Your task to perform on an android device: Add "usb-a to usb-b" to the cart on bestbuy Image 0: 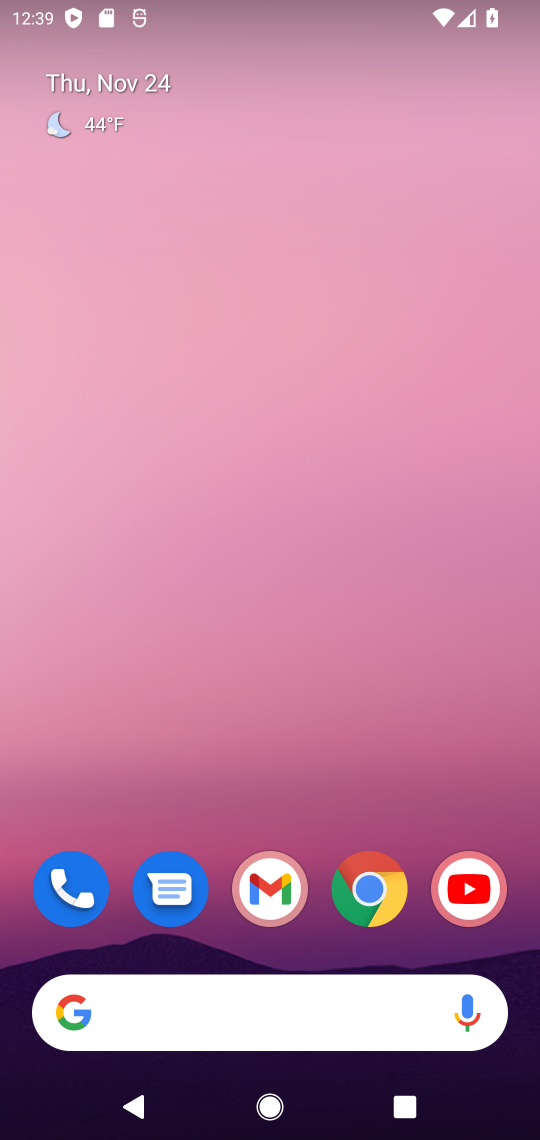
Step 0: click (370, 896)
Your task to perform on an android device: Add "usb-a to usb-b" to the cart on bestbuy Image 1: 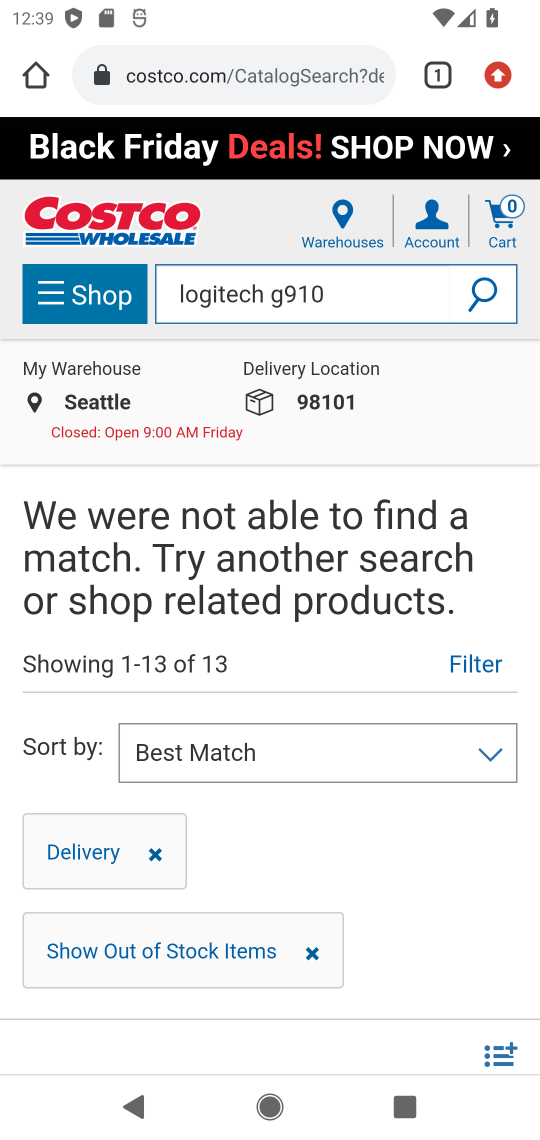
Step 1: click (252, 80)
Your task to perform on an android device: Add "usb-a to usb-b" to the cart on bestbuy Image 2: 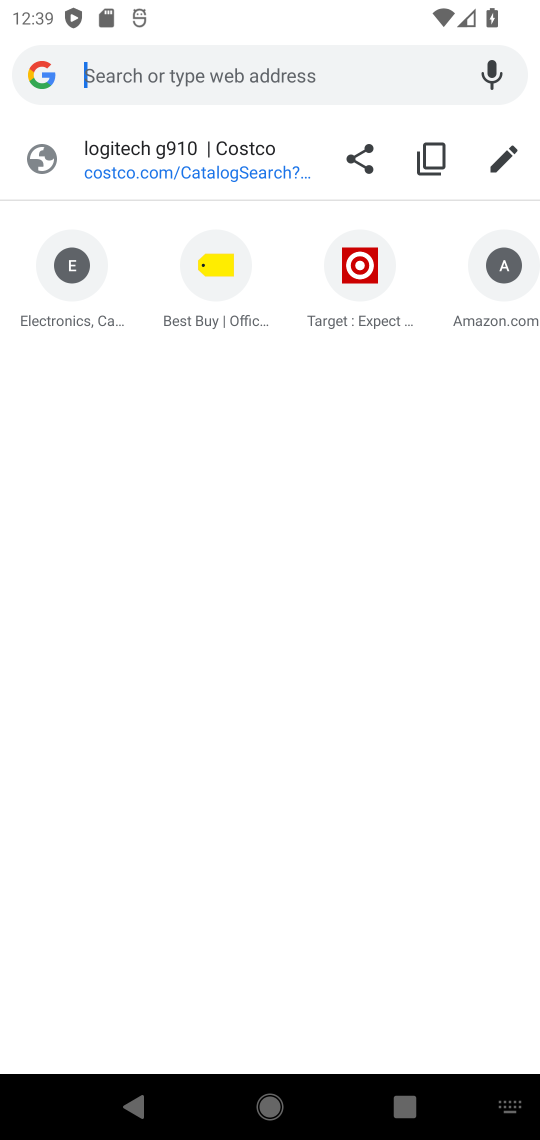
Step 2: click (229, 259)
Your task to perform on an android device: Add "usb-a to usb-b" to the cart on bestbuy Image 3: 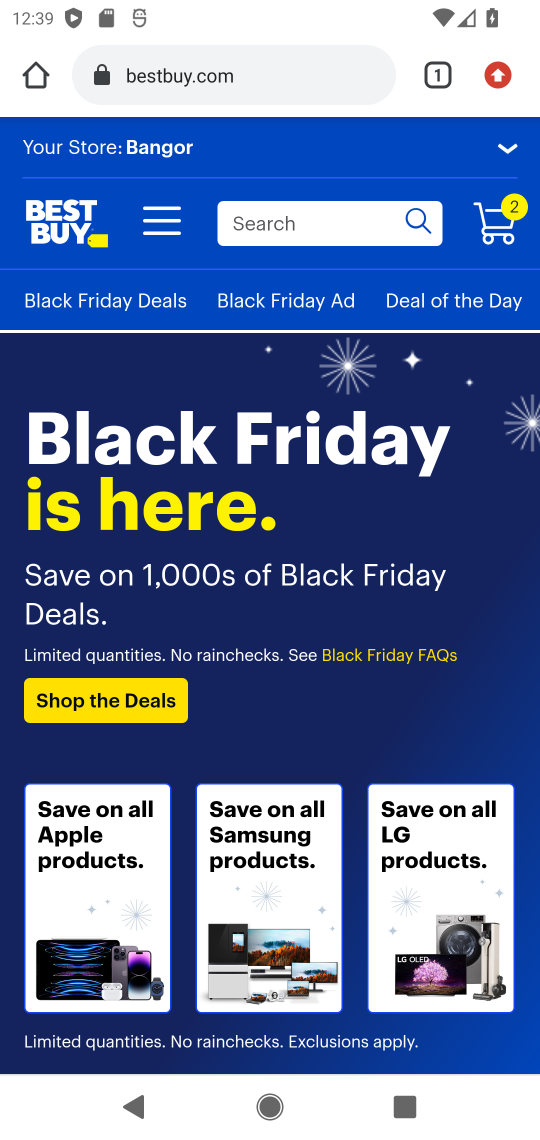
Step 3: click (258, 227)
Your task to perform on an android device: Add "usb-a to usb-b" to the cart on bestbuy Image 4: 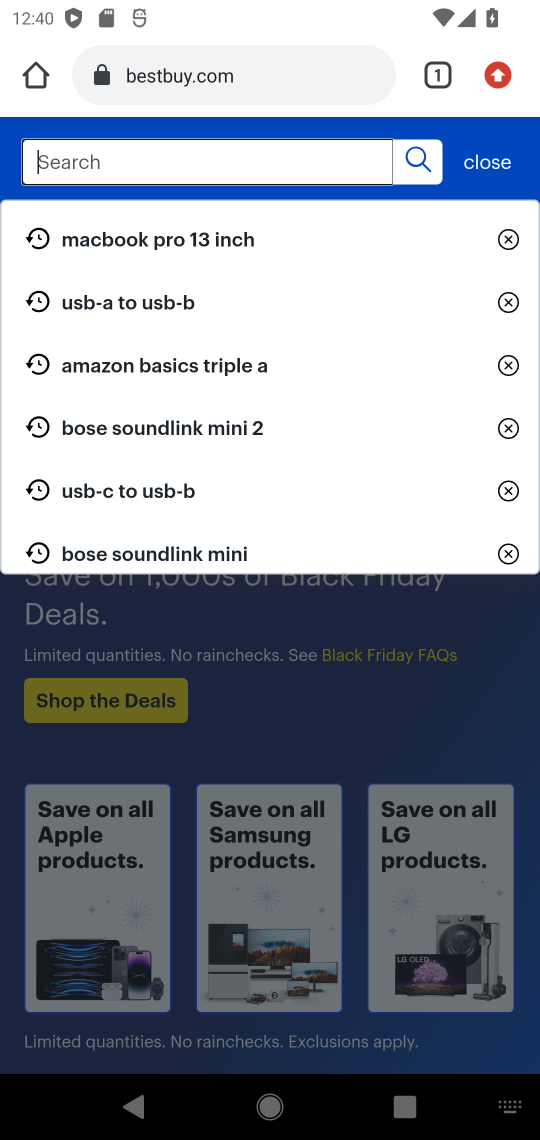
Step 4: click (91, 169)
Your task to perform on an android device: Add "usb-a to usb-b" to the cart on bestbuy Image 5: 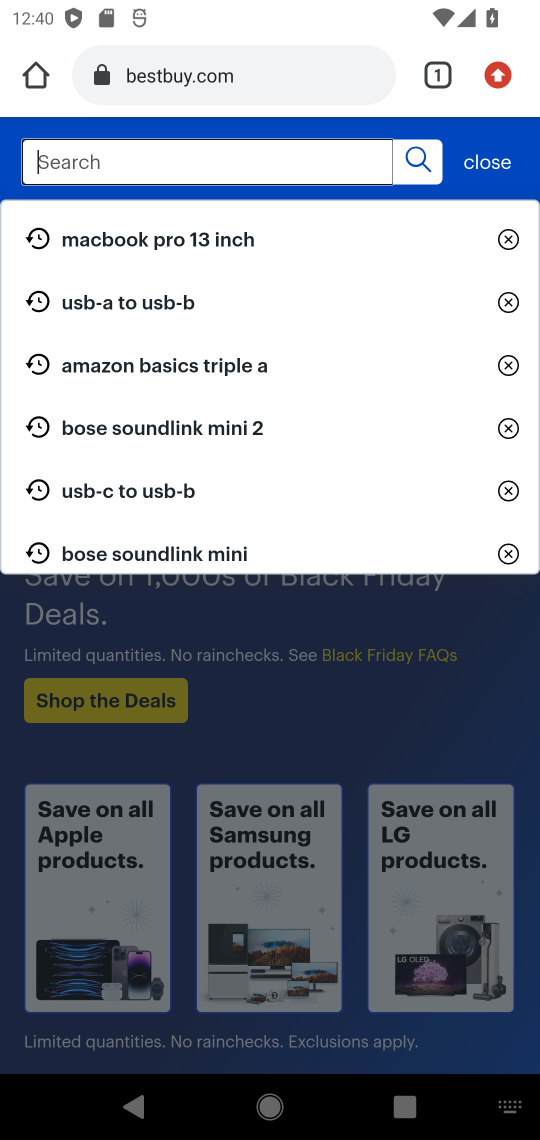
Step 5: type "usb-a to usb-b"
Your task to perform on an android device: Add "usb-a to usb-b" to the cart on bestbuy Image 6: 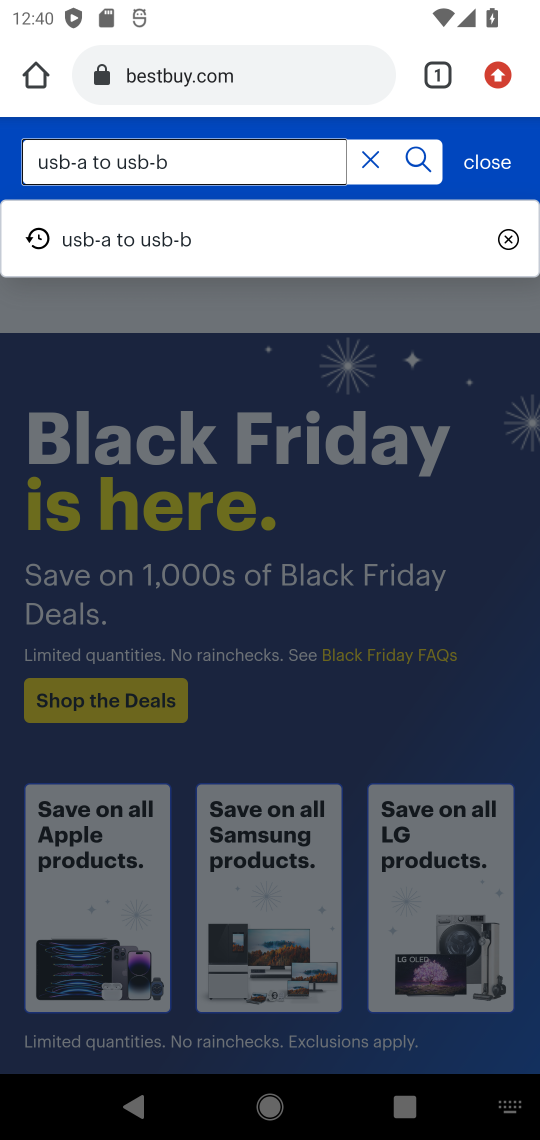
Step 6: click (122, 243)
Your task to perform on an android device: Add "usb-a to usb-b" to the cart on bestbuy Image 7: 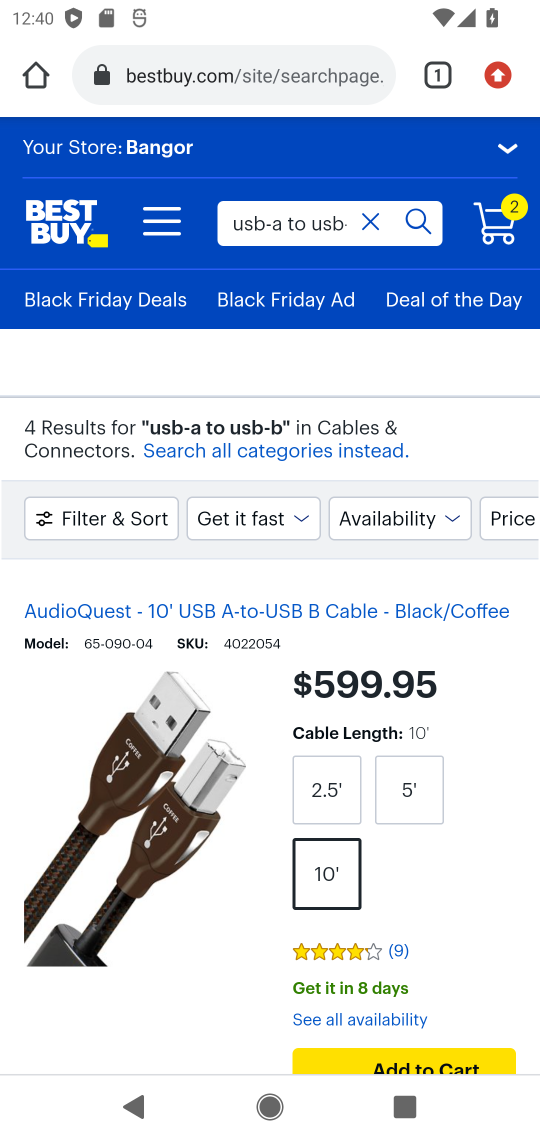
Step 7: drag from (182, 862) to (197, 537)
Your task to perform on an android device: Add "usb-a to usb-b" to the cart on bestbuy Image 8: 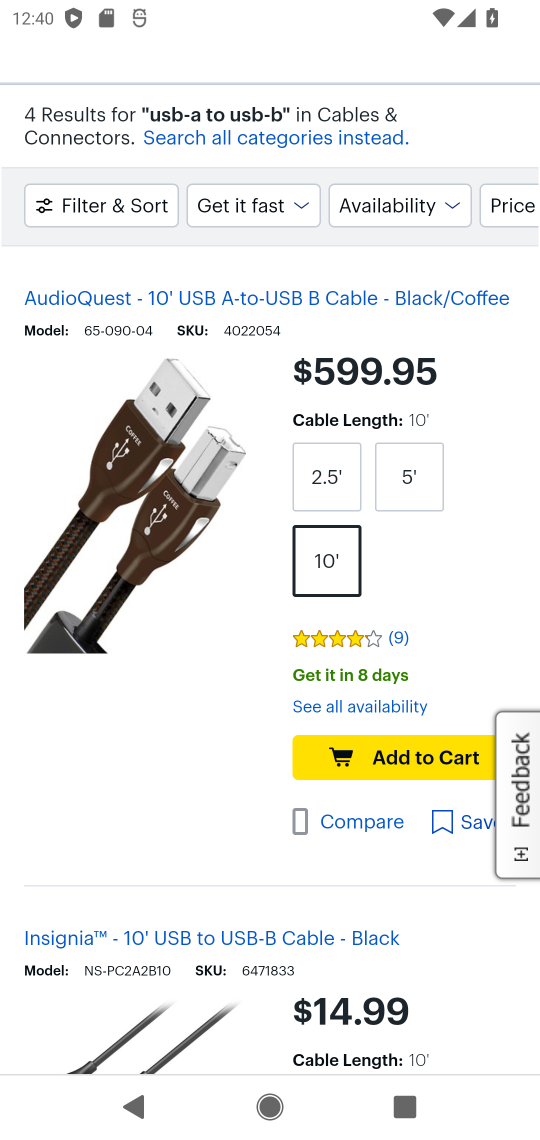
Step 8: click (415, 753)
Your task to perform on an android device: Add "usb-a to usb-b" to the cart on bestbuy Image 9: 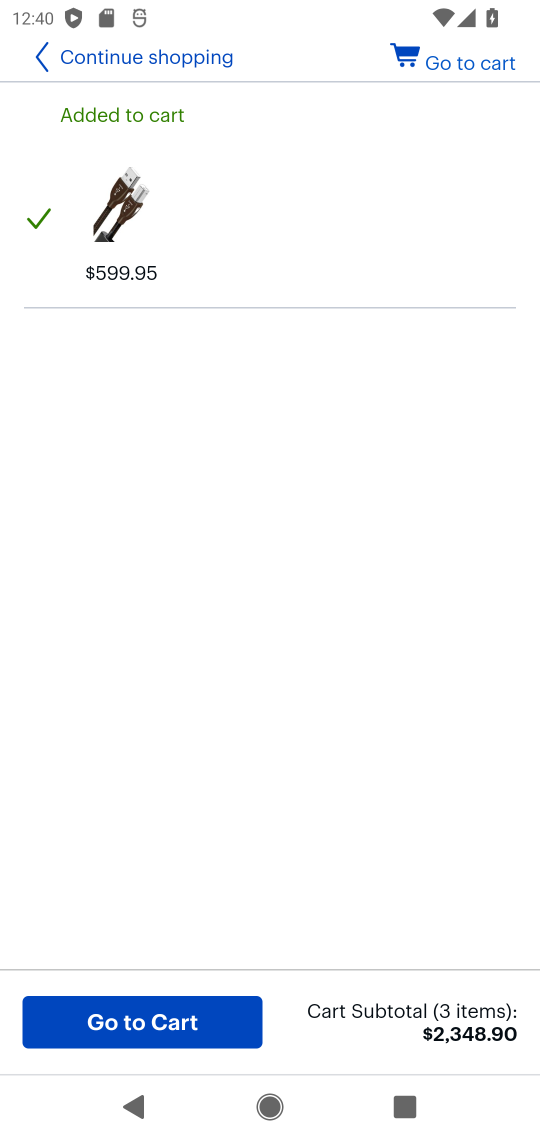
Step 9: task complete